Your task to perform on an android device: Open Yahoo.com Image 0: 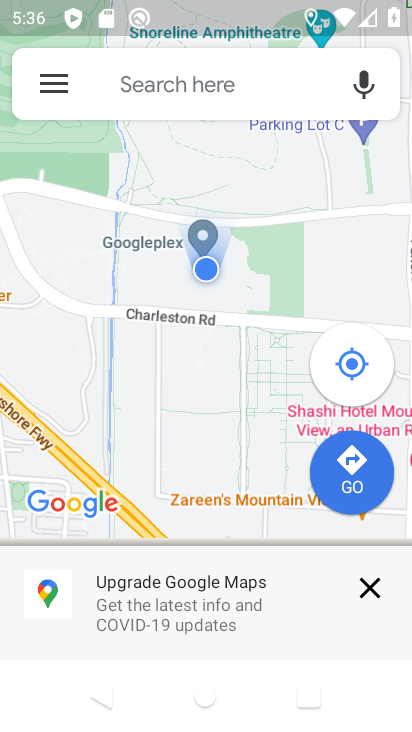
Step 0: press home button
Your task to perform on an android device: Open Yahoo.com Image 1: 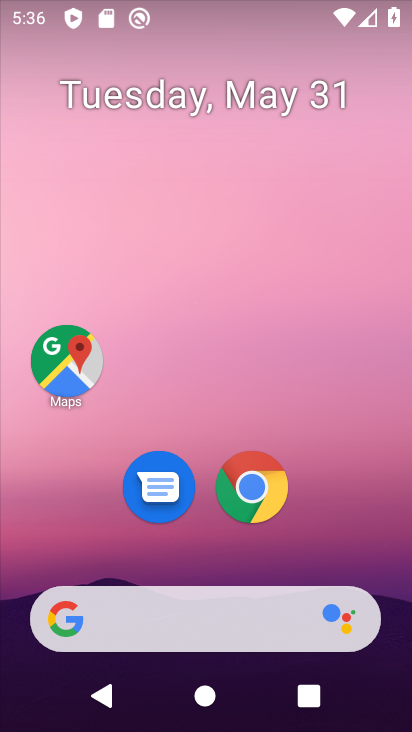
Step 1: click (247, 486)
Your task to perform on an android device: Open Yahoo.com Image 2: 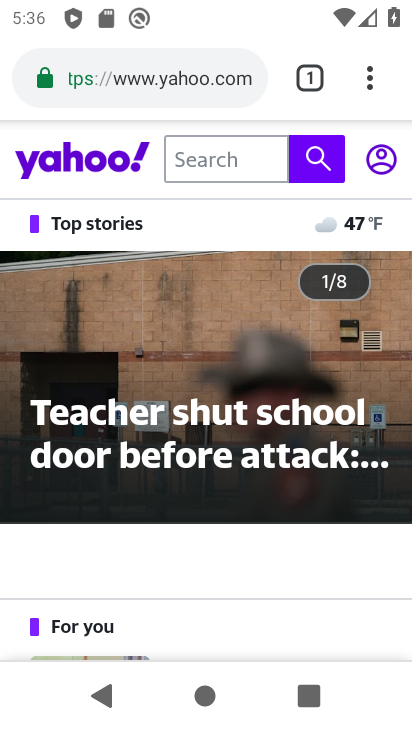
Step 2: task complete